Your task to perform on an android device: Search for seafood restaurants on Google Maps Image 0: 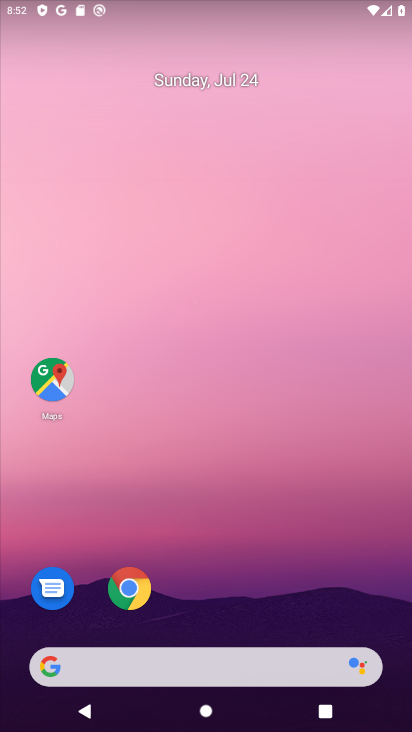
Step 0: click (47, 381)
Your task to perform on an android device: Search for seafood restaurants on Google Maps Image 1: 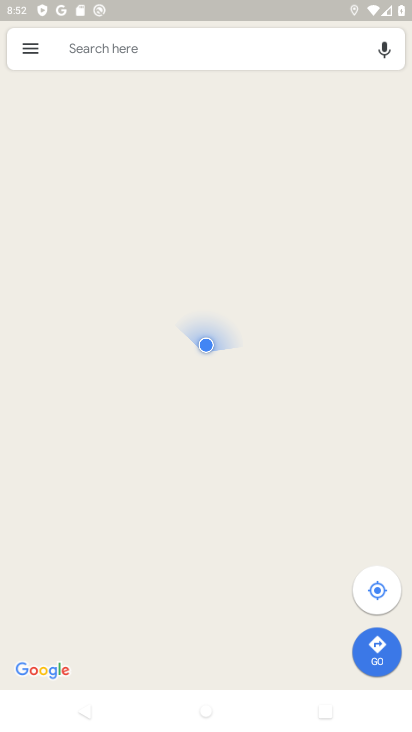
Step 1: click (192, 55)
Your task to perform on an android device: Search for seafood restaurants on Google Maps Image 2: 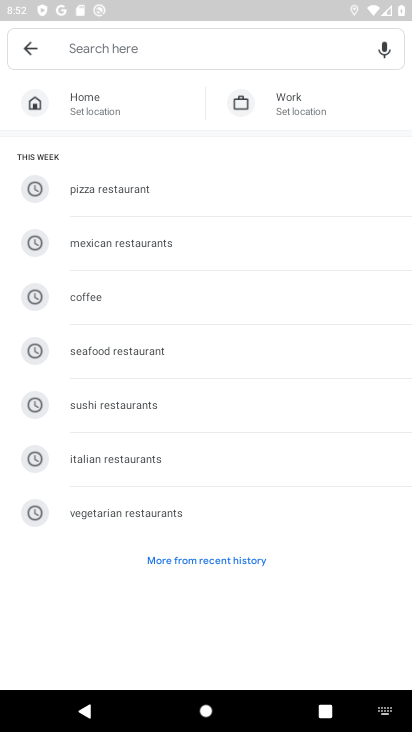
Step 2: click (163, 365)
Your task to perform on an android device: Search for seafood restaurants on Google Maps Image 3: 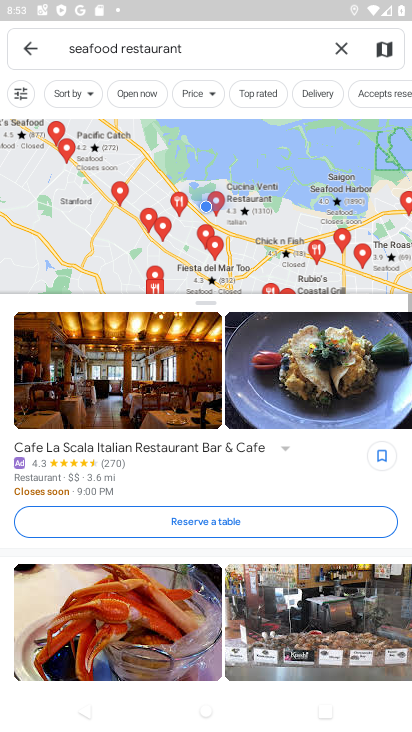
Step 3: task complete